Your task to perform on an android device: check the backup settings in the google photos Image 0: 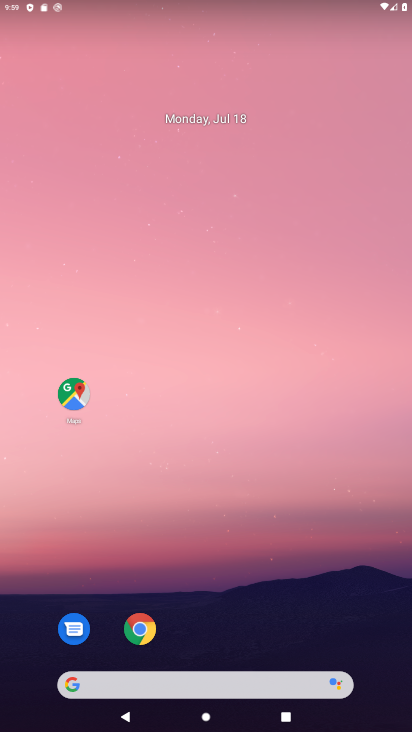
Step 0: drag from (252, 638) to (288, 65)
Your task to perform on an android device: check the backup settings in the google photos Image 1: 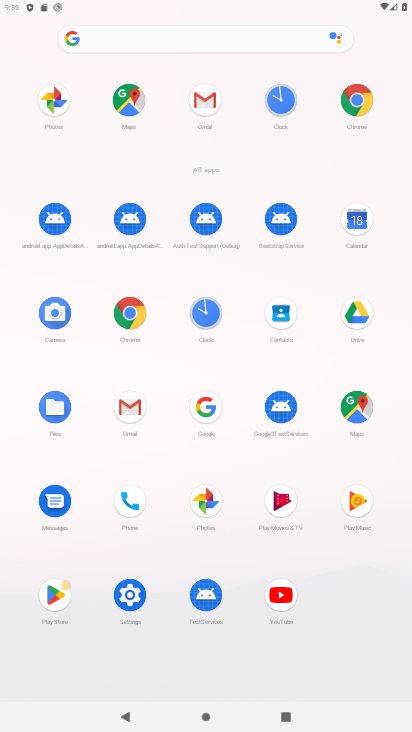
Step 1: click (217, 504)
Your task to perform on an android device: check the backup settings in the google photos Image 2: 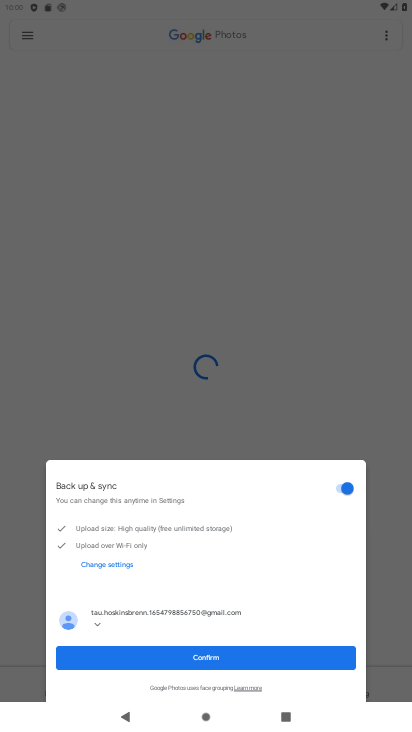
Step 2: click (200, 649)
Your task to perform on an android device: check the backup settings in the google photos Image 3: 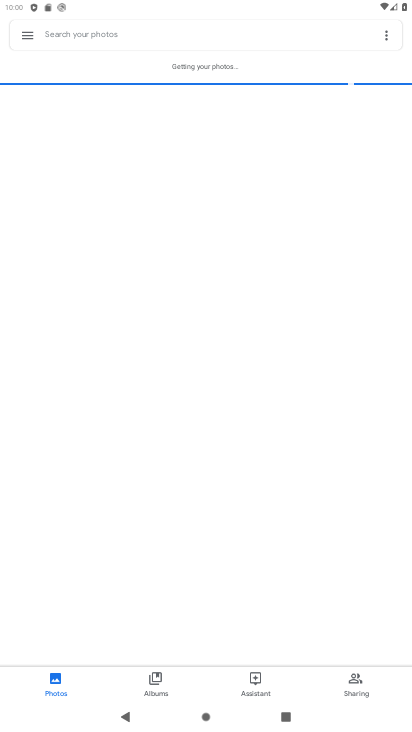
Step 3: click (27, 34)
Your task to perform on an android device: check the backup settings in the google photos Image 4: 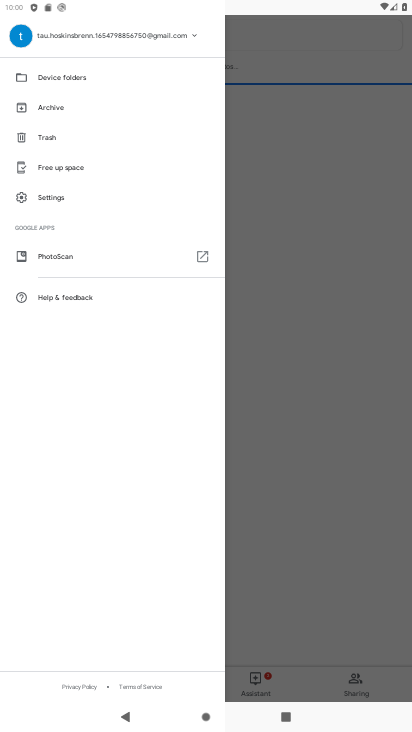
Step 4: click (75, 206)
Your task to perform on an android device: check the backup settings in the google photos Image 5: 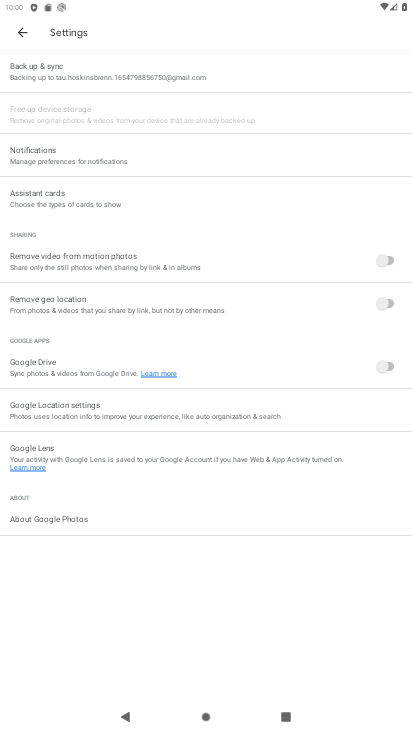
Step 5: click (144, 77)
Your task to perform on an android device: check the backup settings in the google photos Image 6: 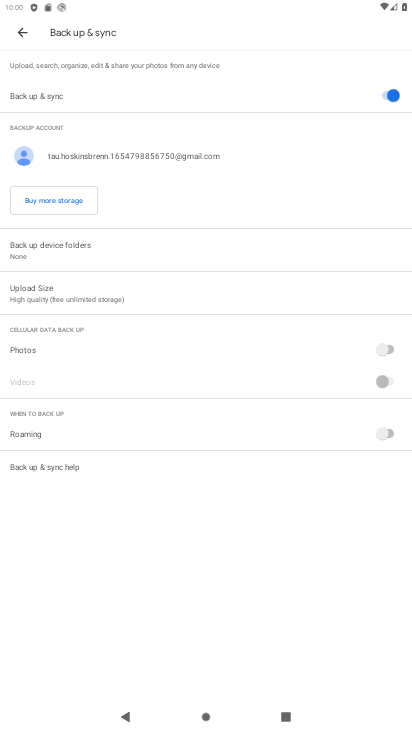
Step 6: task complete